Your task to perform on an android device: Go to Wikipedia Image 0: 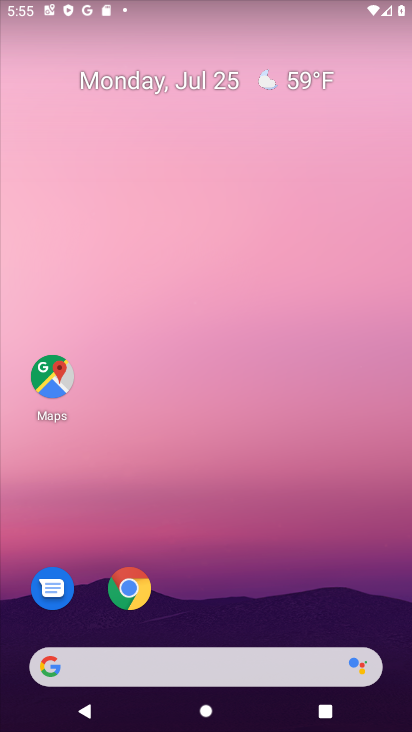
Step 0: click (219, 666)
Your task to perform on an android device: Go to Wikipedia Image 1: 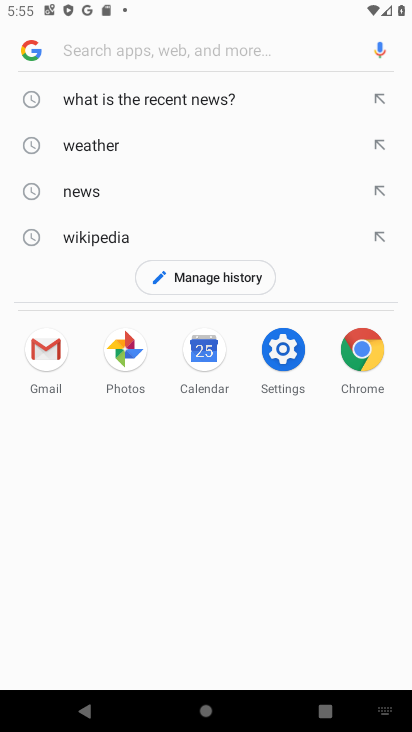
Step 1: type " Wikipedia"
Your task to perform on an android device: Go to Wikipedia Image 2: 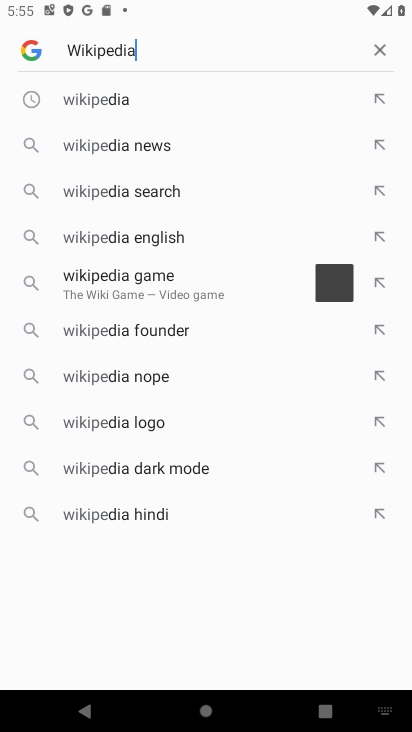
Step 2: press enter
Your task to perform on an android device: Go to Wikipedia Image 3: 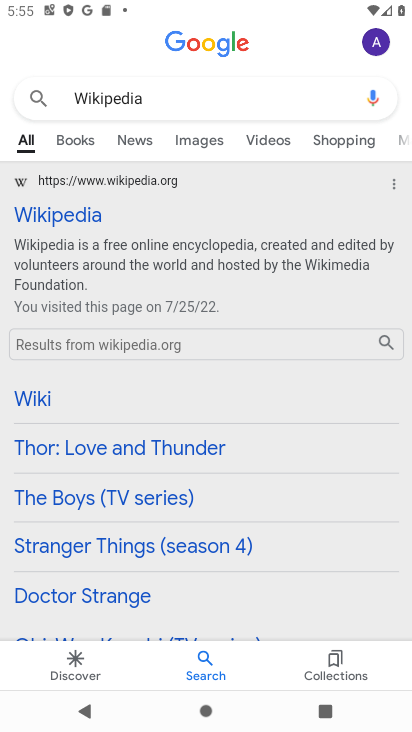
Step 3: click (63, 212)
Your task to perform on an android device: Go to Wikipedia Image 4: 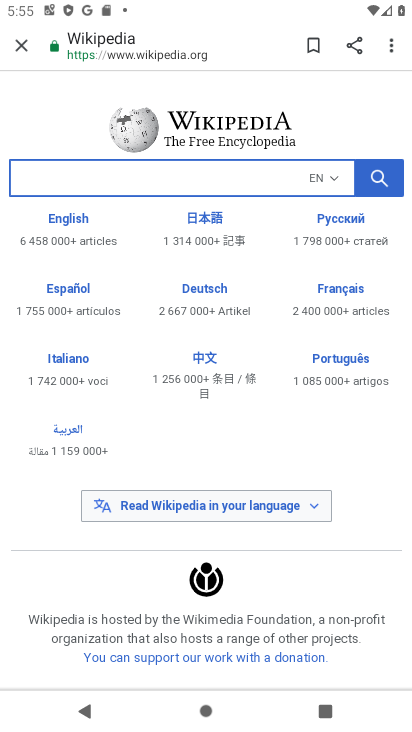
Step 4: task complete